Your task to perform on an android device: toggle pop-ups in chrome Image 0: 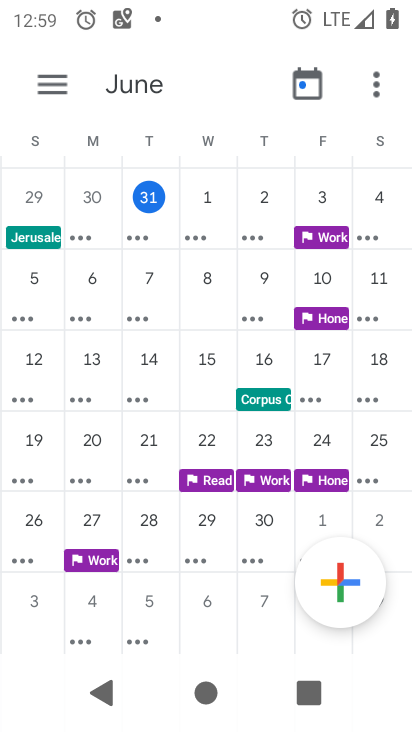
Step 0: press home button
Your task to perform on an android device: toggle pop-ups in chrome Image 1: 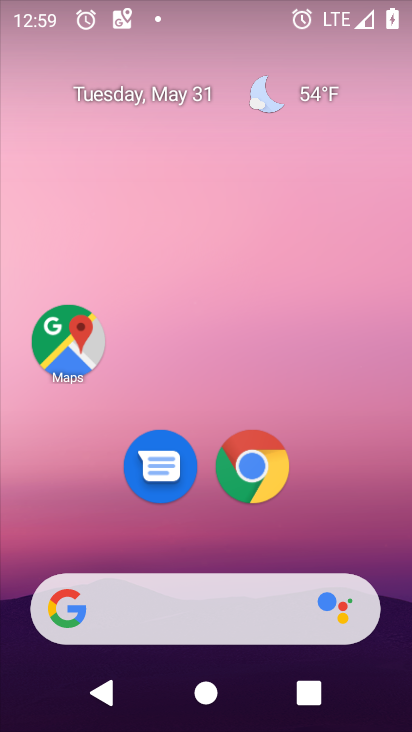
Step 1: click (262, 471)
Your task to perform on an android device: toggle pop-ups in chrome Image 2: 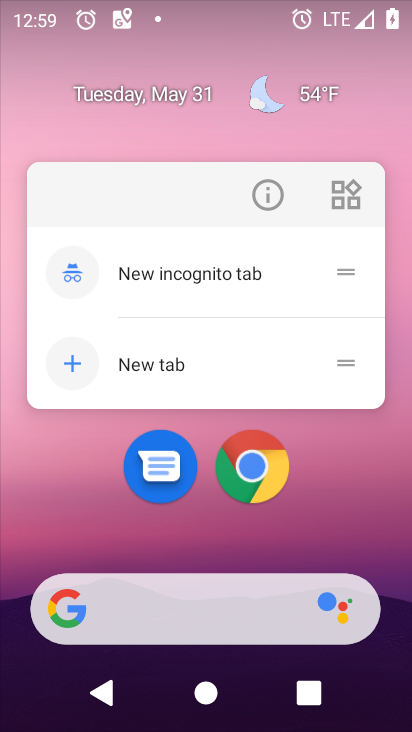
Step 2: click (265, 476)
Your task to perform on an android device: toggle pop-ups in chrome Image 3: 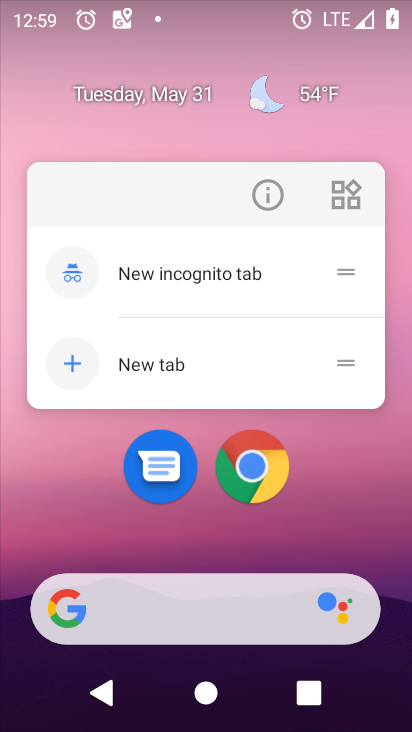
Step 3: click (253, 465)
Your task to perform on an android device: toggle pop-ups in chrome Image 4: 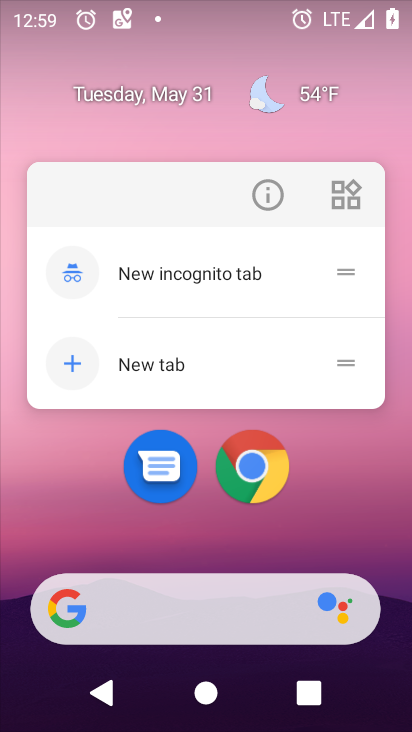
Step 4: click (253, 465)
Your task to perform on an android device: toggle pop-ups in chrome Image 5: 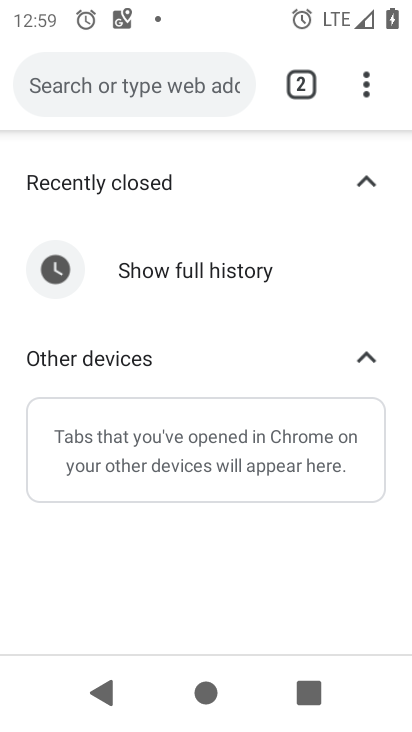
Step 5: drag from (366, 87) to (112, 524)
Your task to perform on an android device: toggle pop-ups in chrome Image 6: 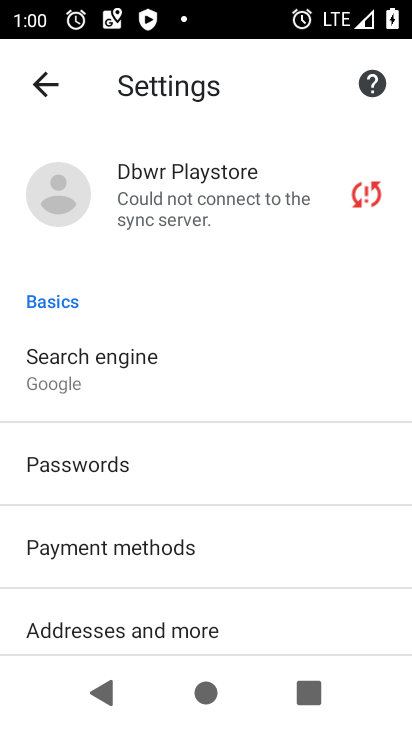
Step 6: drag from (118, 598) to (57, 72)
Your task to perform on an android device: toggle pop-ups in chrome Image 7: 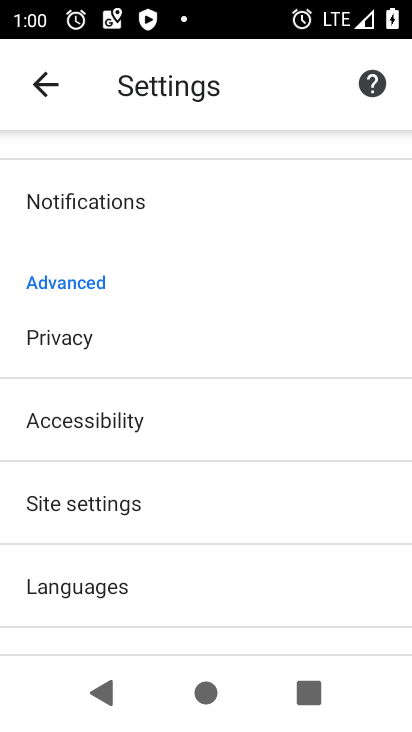
Step 7: click (111, 516)
Your task to perform on an android device: toggle pop-ups in chrome Image 8: 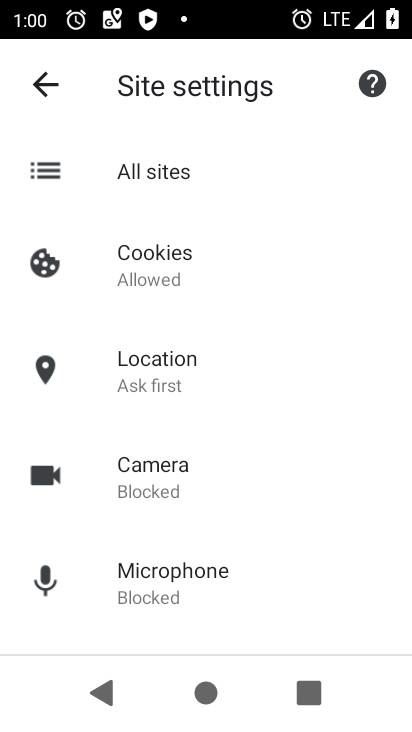
Step 8: drag from (175, 451) to (64, 3)
Your task to perform on an android device: toggle pop-ups in chrome Image 9: 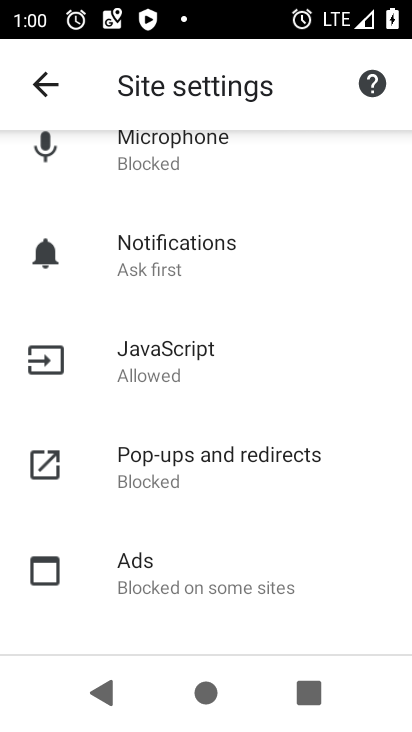
Step 9: click (202, 484)
Your task to perform on an android device: toggle pop-ups in chrome Image 10: 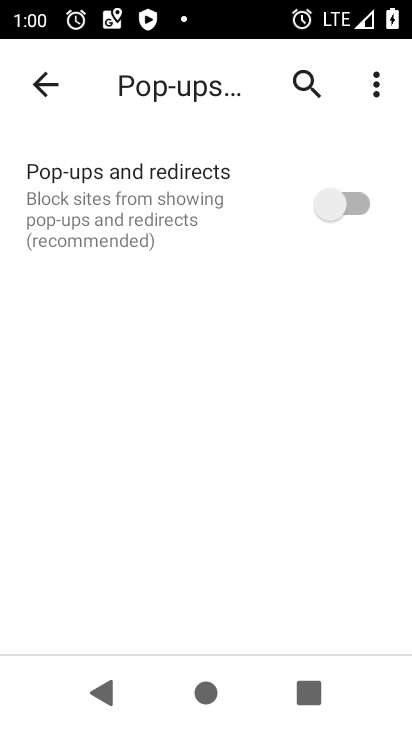
Step 10: click (349, 191)
Your task to perform on an android device: toggle pop-ups in chrome Image 11: 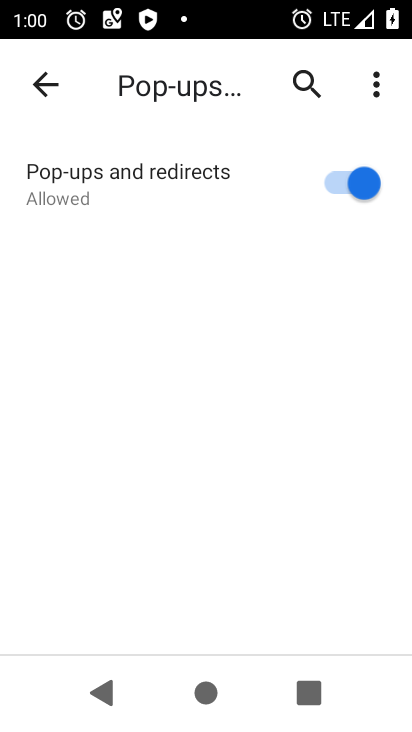
Step 11: task complete